Your task to perform on an android device: turn on notifications settings in the gmail app Image 0: 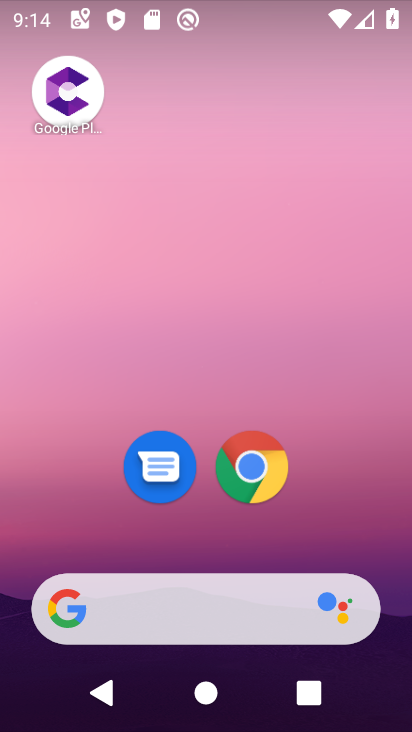
Step 0: drag from (323, 514) to (263, 60)
Your task to perform on an android device: turn on notifications settings in the gmail app Image 1: 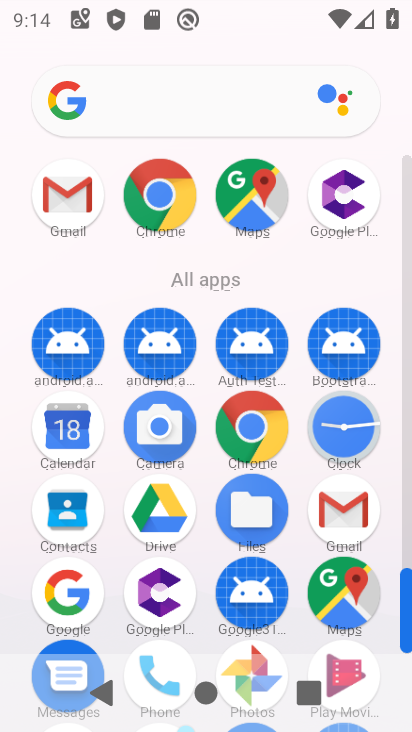
Step 1: click (343, 535)
Your task to perform on an android device: turn on notifications settings in the gmail app Image 2: 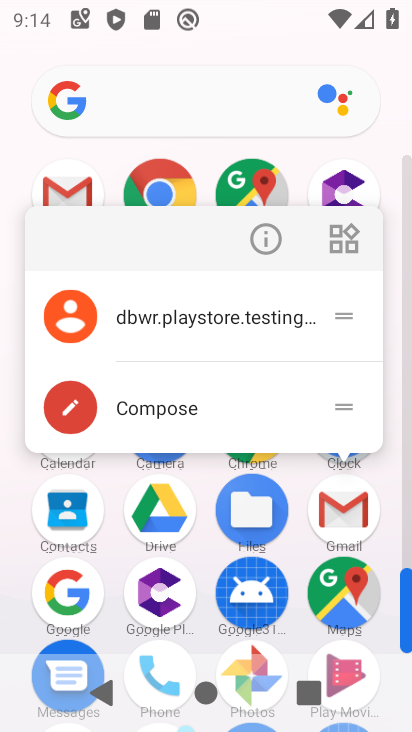
Step 2: click (343, 535)
Your task to perform on an android device: turn on notifications settings in the gmail app Image 3: 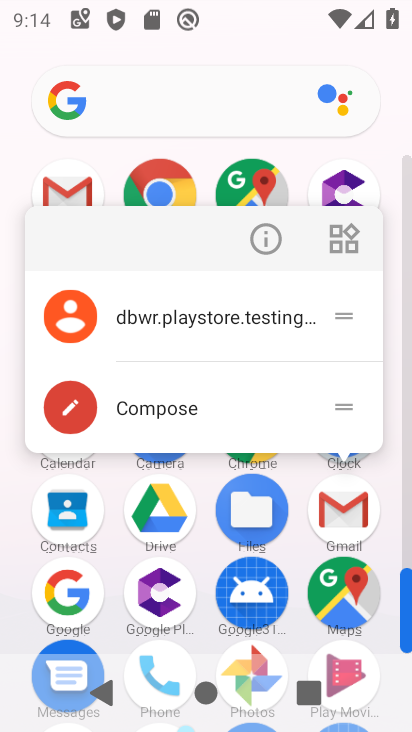
Step 3: click (343, 535)
Your task to perform on an android device: turn on notifications settings in the gmail app Image 4: 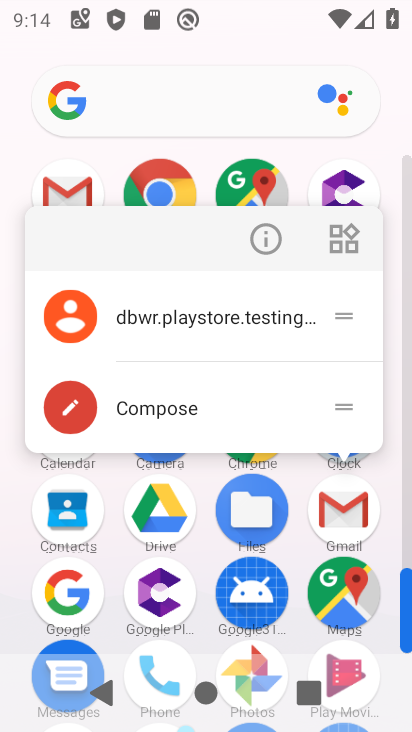
Step 4: click (343, 535)
Your task to perform on an android device: turn on notifications settings in the gmail app Image 5: 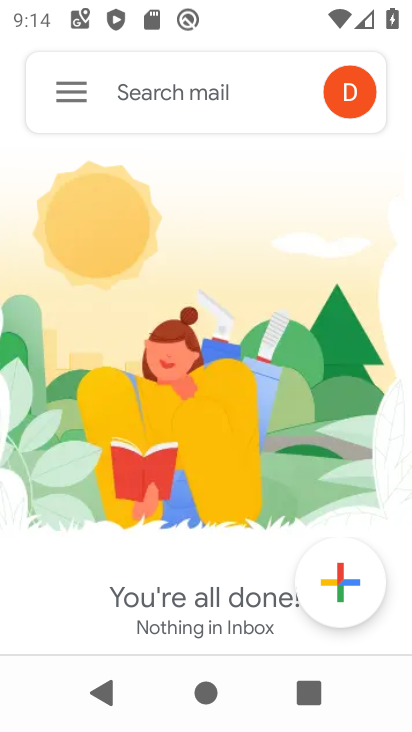
Step 5: click (48, 84)
Your task to perform on an android device: turn on notifications settings in the gmail app Image 6: 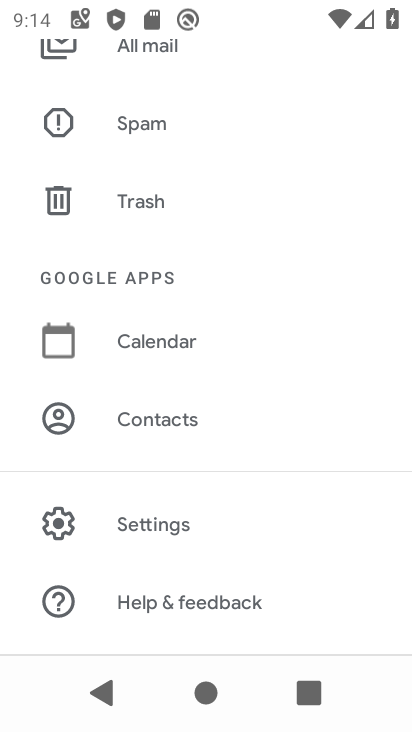
Step 6: click (118, 538)
Your task to perform on an android device: turn on notifications settings in the gmail app Image 7: 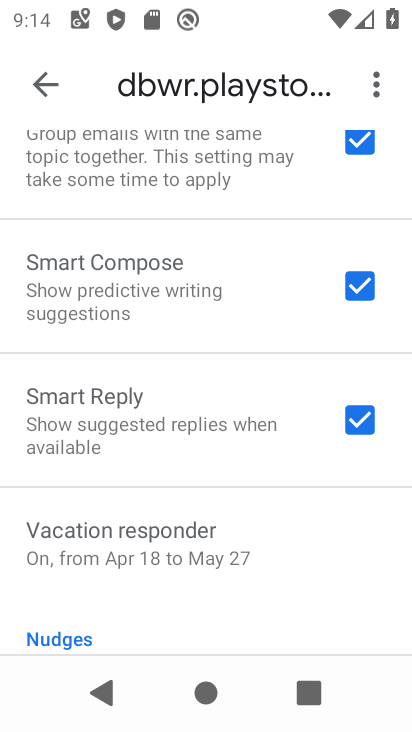
Step 7: drag from (202, 168) to (212, 631)
Your task to perform on an android device: turn on notifications settings in the gmail app Image 8: 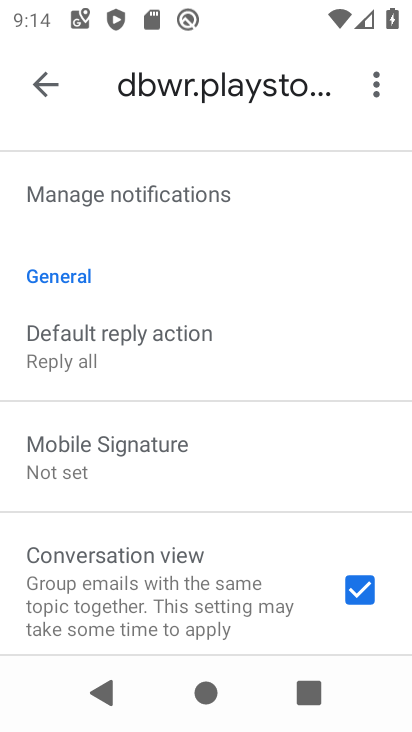
Step 8: drag from (186, 259) to (206, 632)
Your task to perform on an android device: turn on notifications settings in the gmail app Image 9: 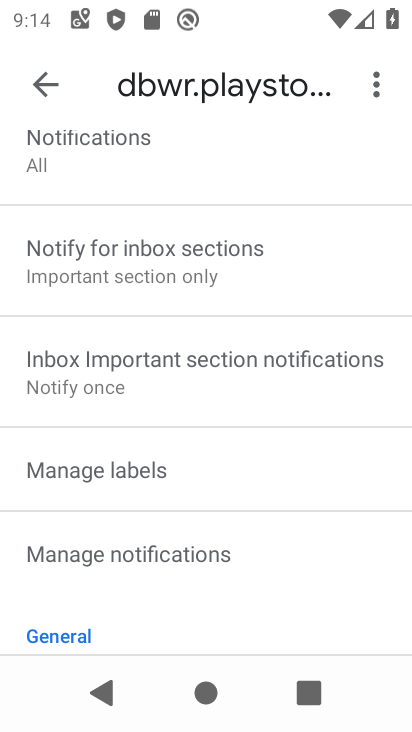
Step 9: drag from (145, 191) to (163, 590)
Your task to perform on an android device: turn on notifications settings in the gmail app Image 10: 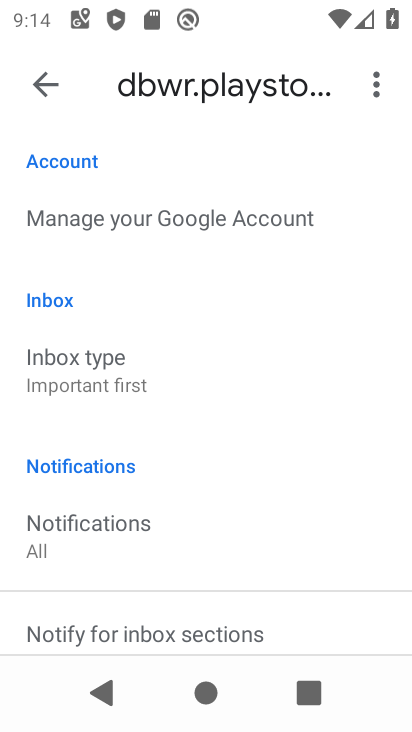
Step 10: click (139, 559)
Your task to perform on an android device: turn on notifications settings in the gmail app Image 11: 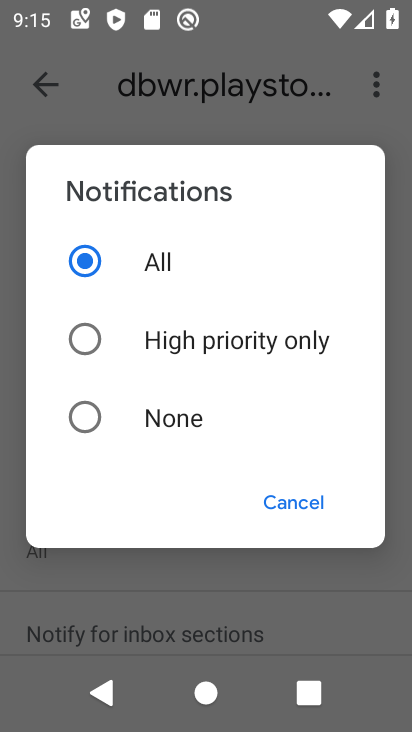
Step 11: task complete